Your task to perform on an android device: turn off improve location accuracy Image 0: 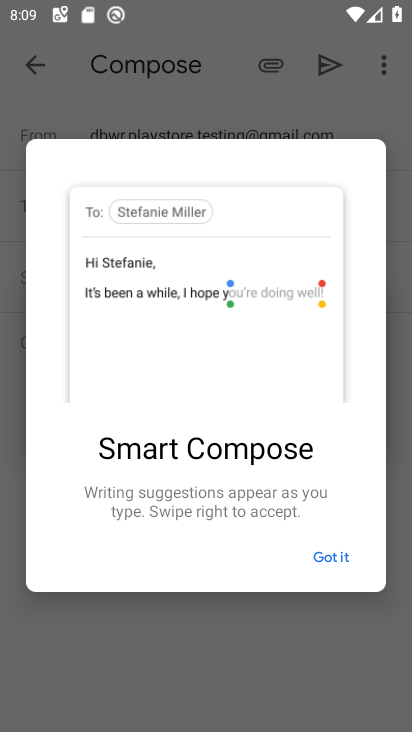
Step 0: press home button
Your task to perform on an android device: turn off improve location accuracy Image 1: 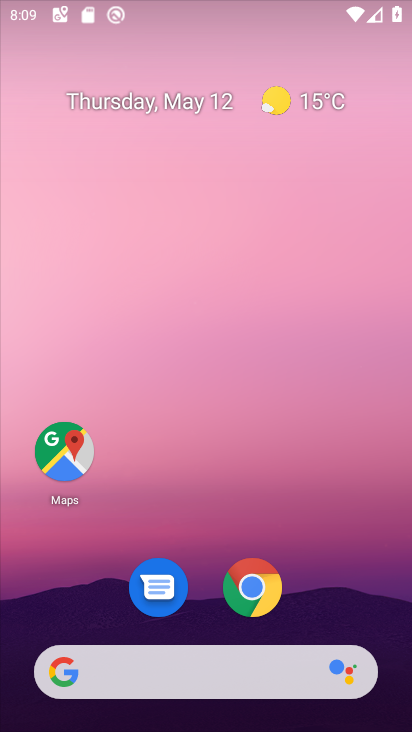
Step 1: drag from (375, 600) to (197, 89)
Your task to perform on an android device: turn off improve location accuracy Image 2: 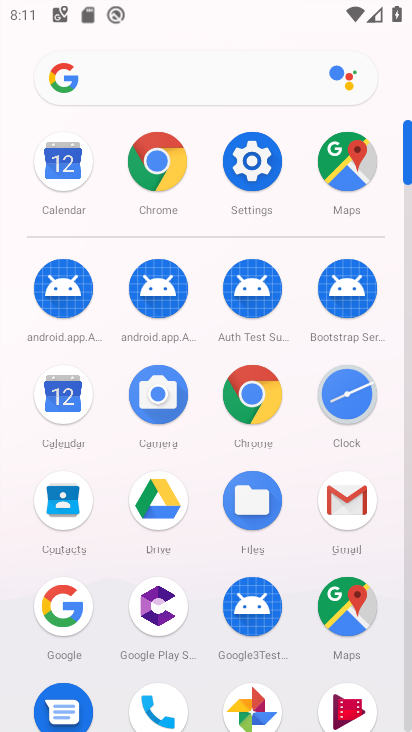
Step 2: click (255, 171)
Your task to perform on an android device: turn off improve location accuracy Image 3: 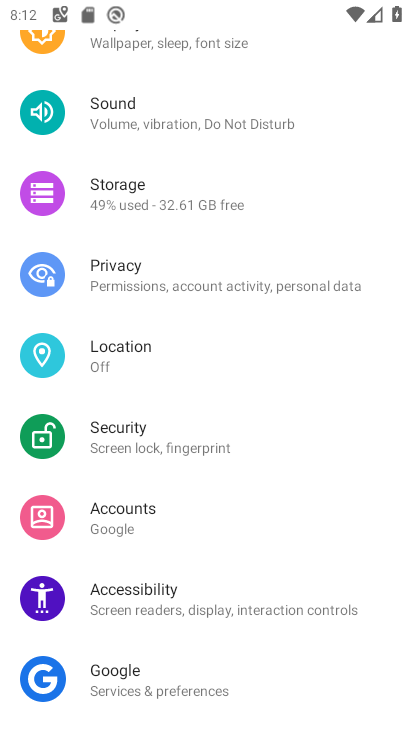
Step 3: click (159, 362)
Your task to perform on an android device: turn off improve location accuracy Image 4: 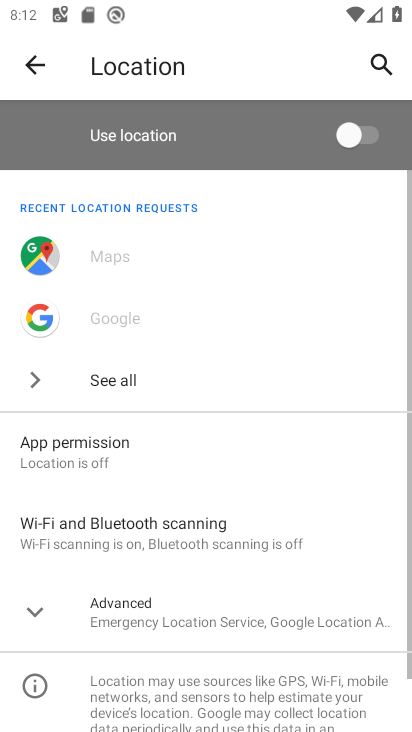
Step 4: click (167, 596)
Your task to perform on an android device: turn off improve location accuracy Image 5: 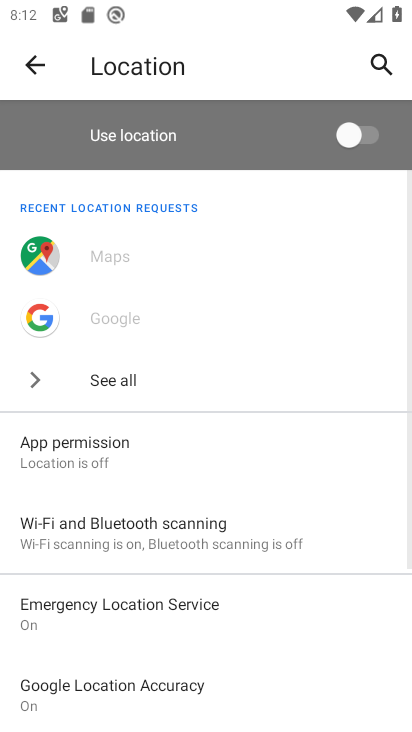
Step 5: click (154, 680)
Your task to perform on an android device: turn off improve location accuracy Image 6: 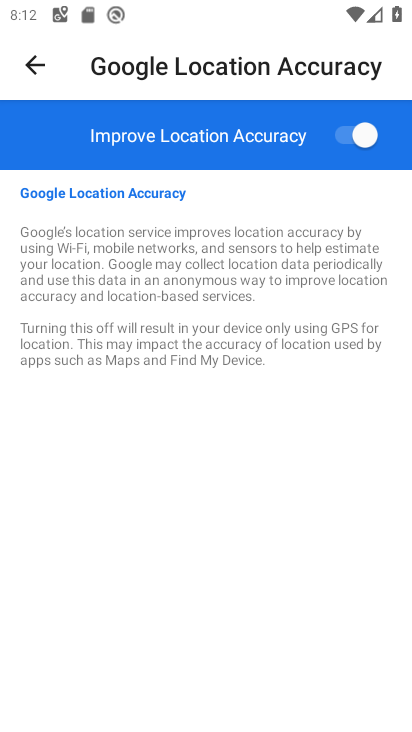
Step 6: click (324, 149)
Your task to perform on an android device: turn off improve location accuracy Image 7: 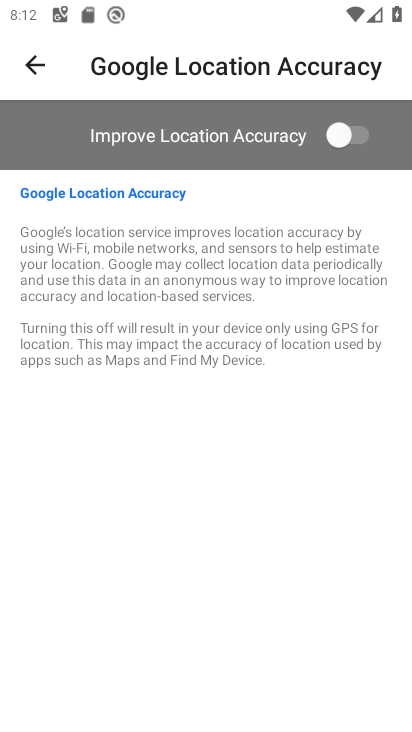
Step 7: task complete